Your task to perform on an android device: add a label to a message in the gmail app Image 0: 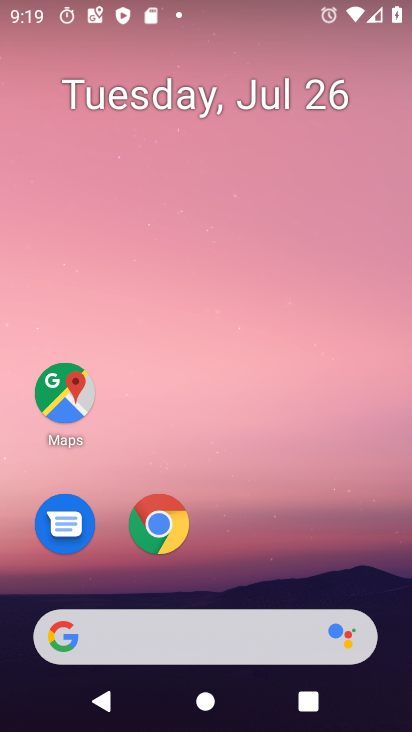
Step 0: drag from (279, 576) to (312, 58)
Your task to perform on an android device: add a label to a message in the gmail app Image 1: 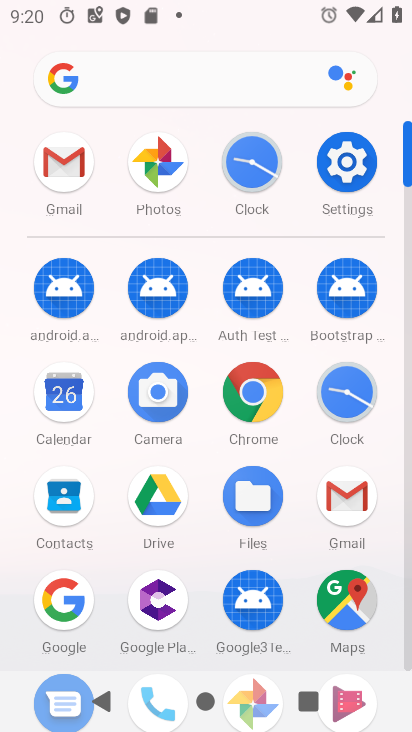
Step 1: click (73, 168)
Your task to perform on an android device: add a label to a message in the gmail app Image 2: 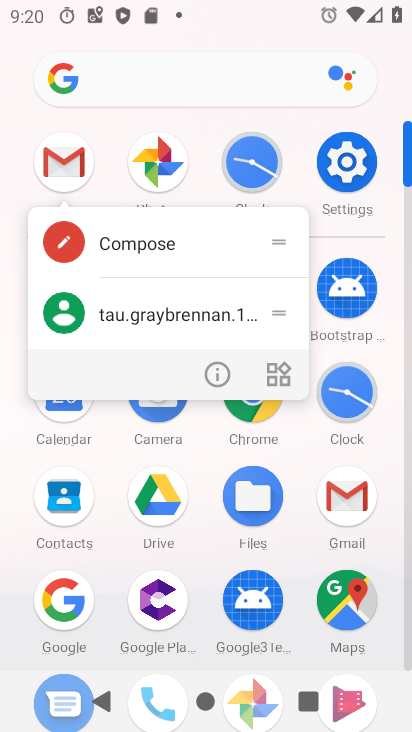
Step 2: click (62, 149)
Your task to perform on an android device: add a label to a message in the gmail app Image 3: 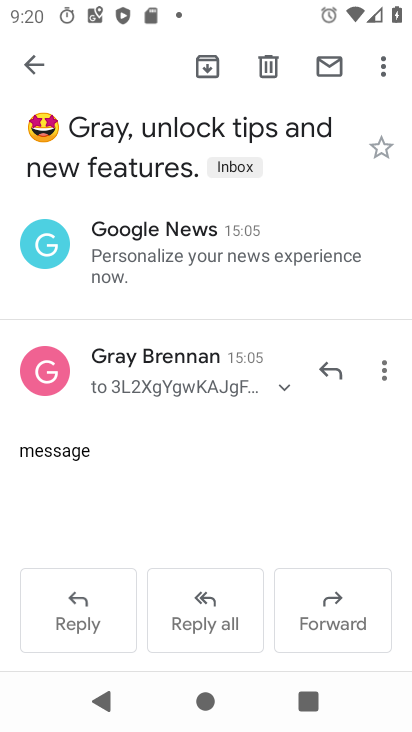
Step 3: click (381, 65)
Your task to perform on an android device: add a label to a message in the gmail app Image 4: 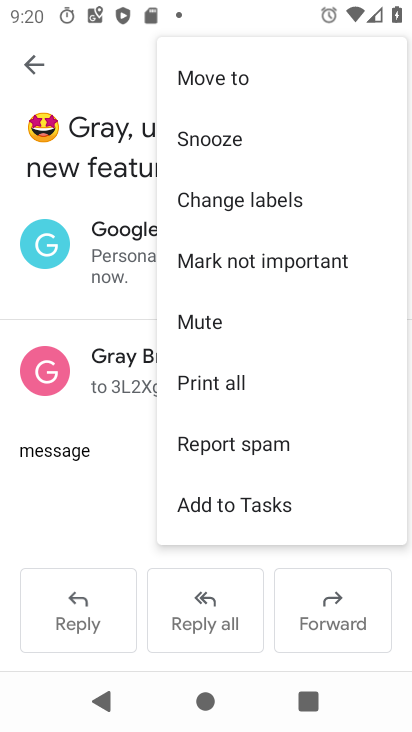
Step 4: click (276, 200)
Your task to perform on an android device: add a label to a message in the gmail app Image 5: 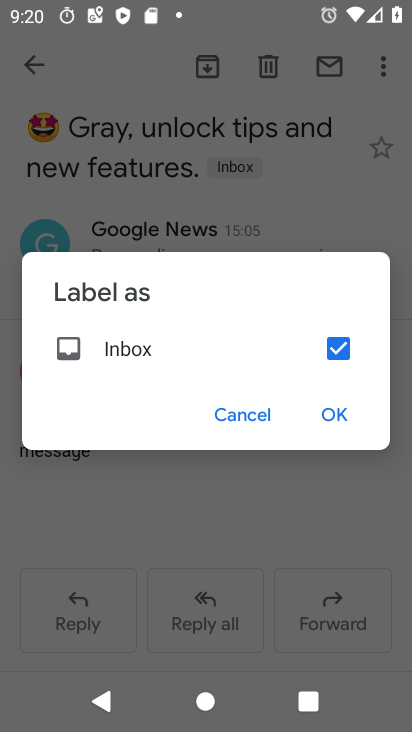
Step 5: click (332, 341)
Your task to perform on an android device: add a label to a message in the gmail app Image 6: 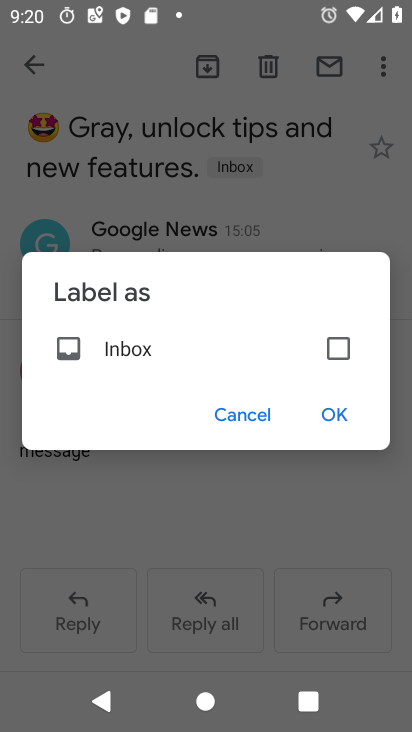
Step 6: click (335, 409)
Your task to perform on an android device: add a label to a message in the gmail app Image 7: 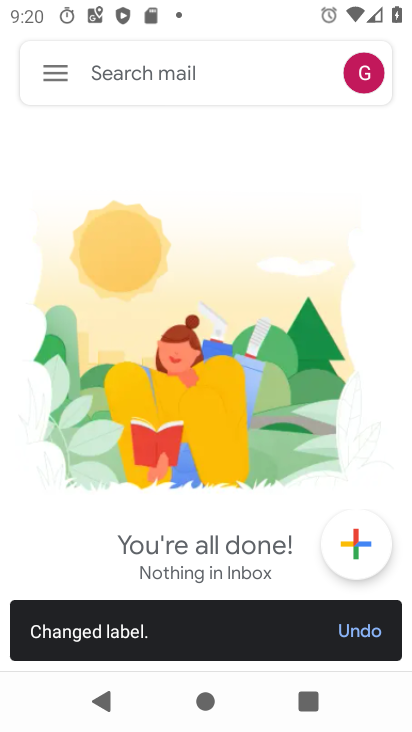
Step 7: task complete